Your task to perform on an android device: turn on wifi Image 0: 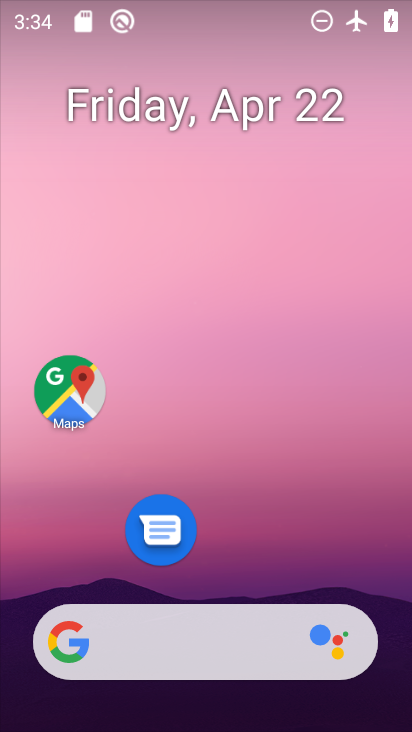
Step 0: drag from (245, 547) to (255, 6)
Your task to perform on an android device: turn on wifi Image 1: 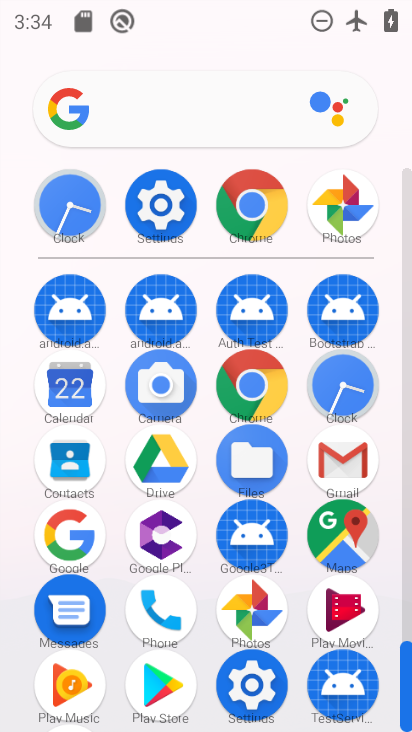
Step 1: click (167, 196)
Your task to perform on an android device: turn on wifi Image 2: 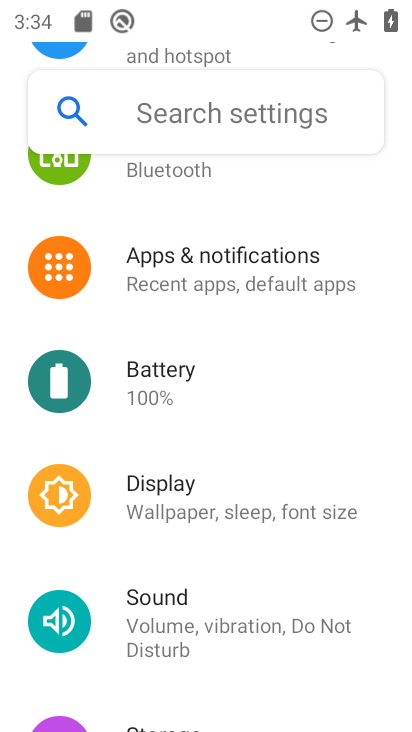
Step 2: drag from (196, 234) to (161, 725)
Your task to perform on an android device: turn on wifi Image 3: 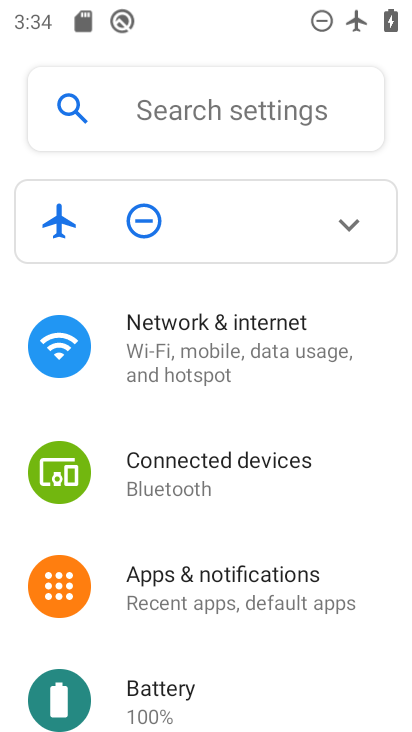
Step 3: click (201, 334)
Your task to perform on an android device: turn on wifi Image 4: 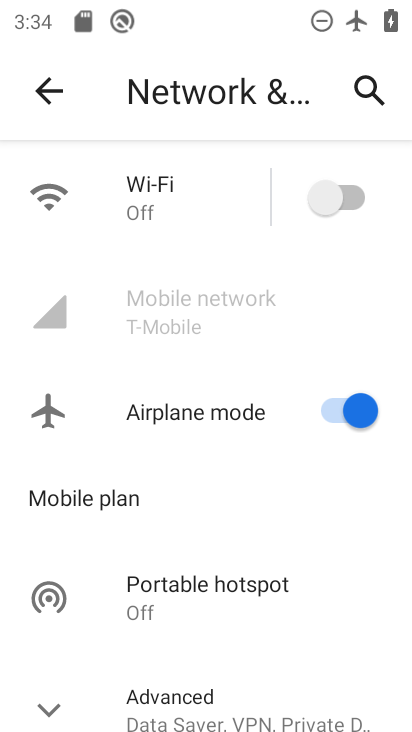
Step 4: click (317, 199)
Your task to perform on an android device: turn on wifi Image 5: 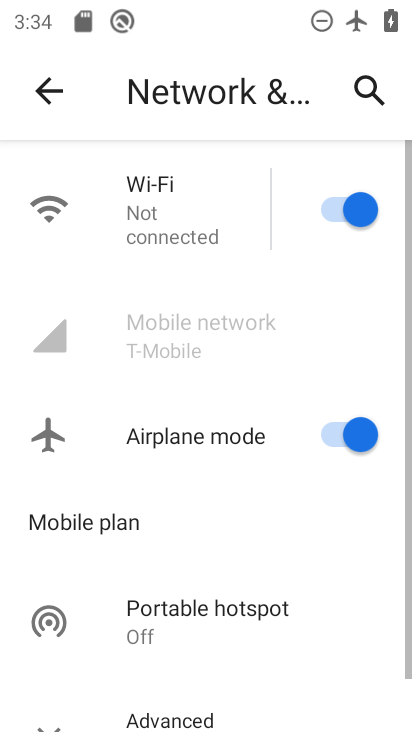
Step 5: task complete